Your task to perform on an android device: turn off smart reply in the gmail app Image 0: 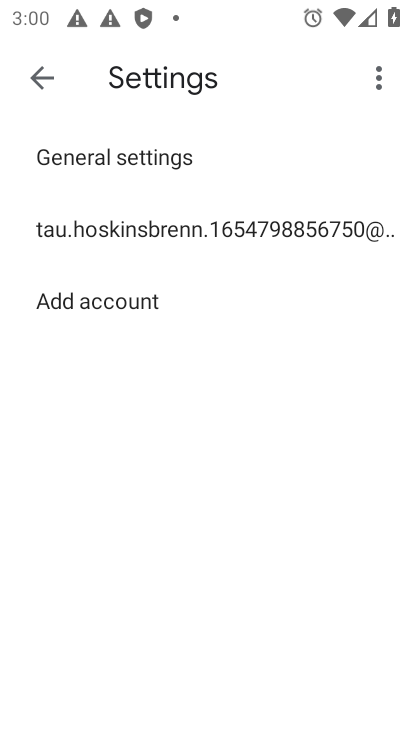
Step 0: press home button
Your task to perform on an android device: turn off smart reply in the gmail app Image 1: 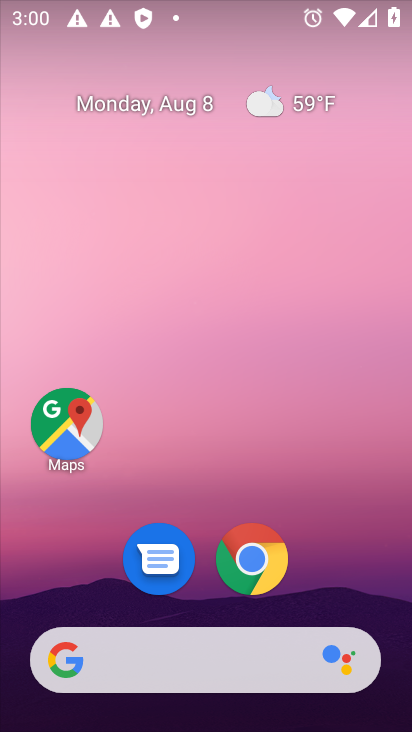
Step 1: drag from (179, 660) to (244, 201)
Your task to perform on an android device: turn off smart reply in the gmail app Image 2: 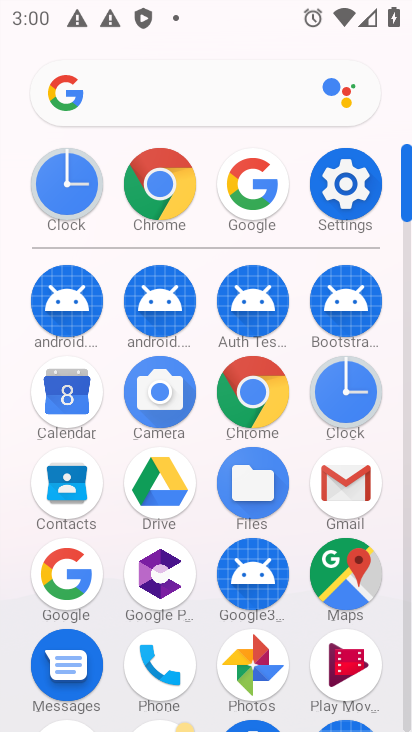
Step 2: click (345, 481)
Your task to perform on an android device: turn off smart reply in the gmail app Image 3: 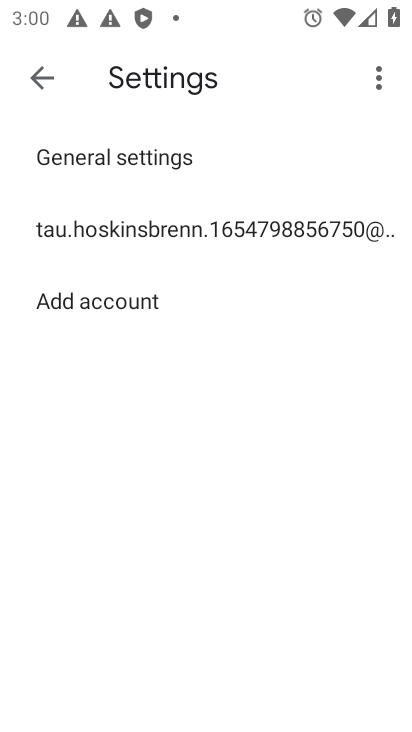
Step 3: click (262, 231)
Your task to perform on an android device: turn off smart reply in the gmail app Image 4: 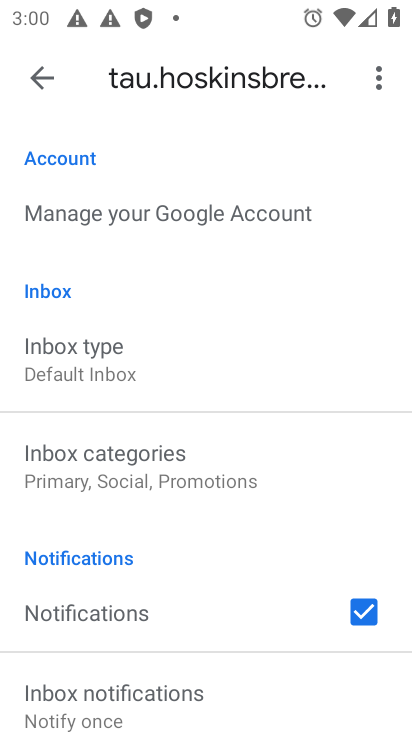
Step 4: drag from (128, 500) to (169, 345)
Your task to perform on an android device: turn off smart reply in the gmail app Image 5: 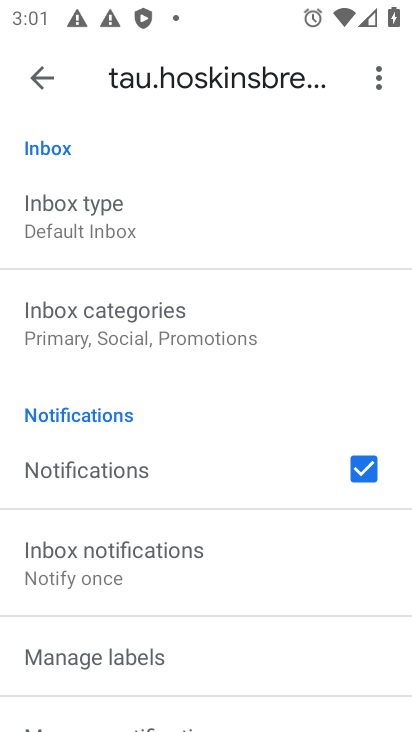
Step 5: drag from (145, 497) to (170, 404)
Your task to perform on an android device: turn off smart reply in the gmail app Image 6: 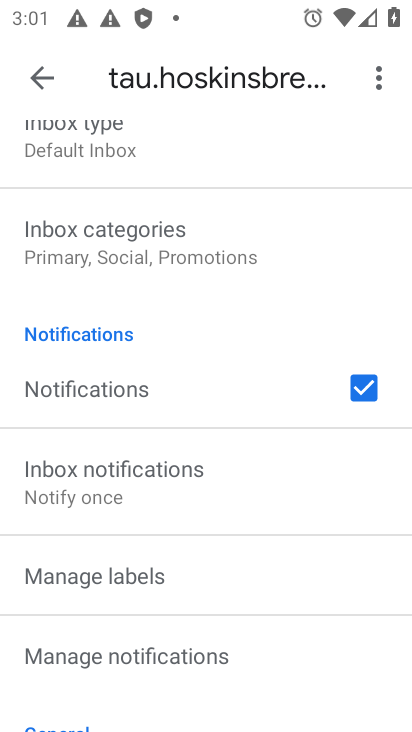
Step 6: drag from (141, 507) to (185, 415)
Your task to perform on an android device: turn off smart reply in the gmail app Image 7: 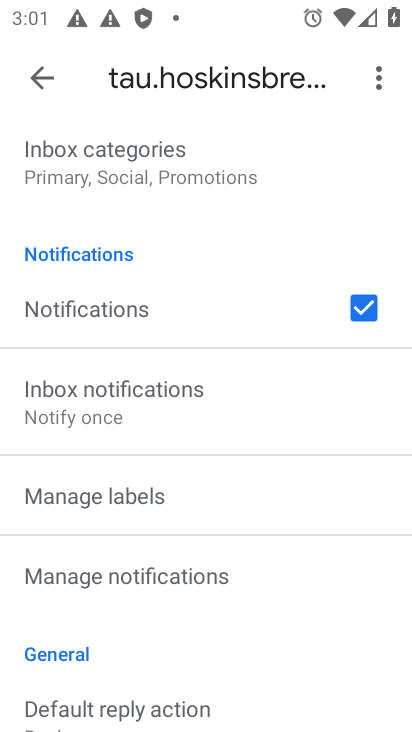
Step 7: drag from (145, 519) to (187, 431)
Your task to perform on an android device: turn off smart reply in the gmail app Image 8: 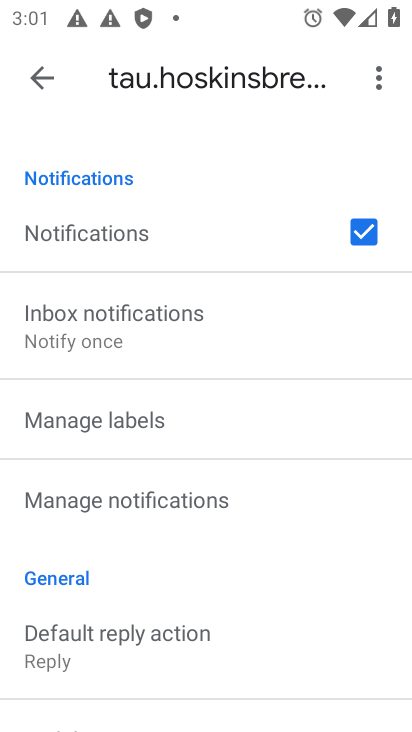
Step 8: drag from (143, 531) to (210, 426)
Your task to perform on an android device: turn off smart reply in the gmail app Image 9: 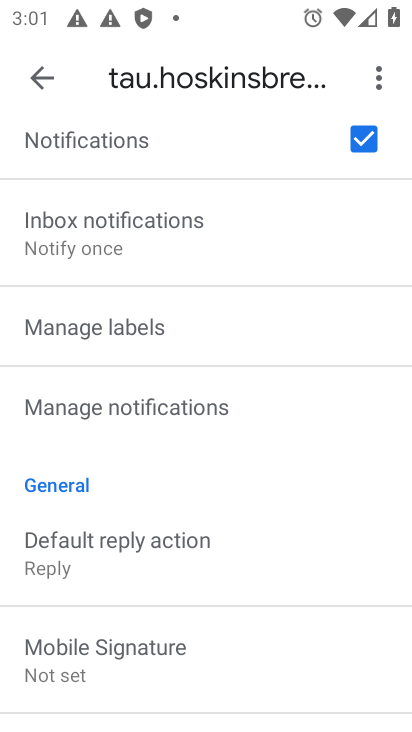
Step 9: drag from (138, 583) to (196, 481)
Your task to perform on an android device: turn off smart reply in the gmail app Image 10: 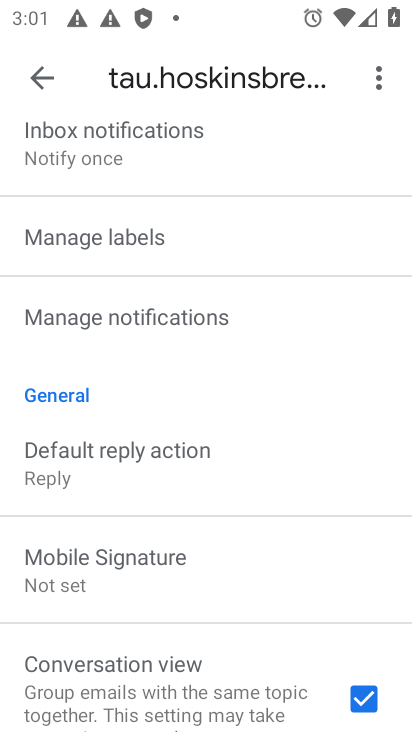
Step 10: drag from (139, 581) to (206, 483)
Your task to perform on an android device: turn off smart reply in the gmail app Image 11: 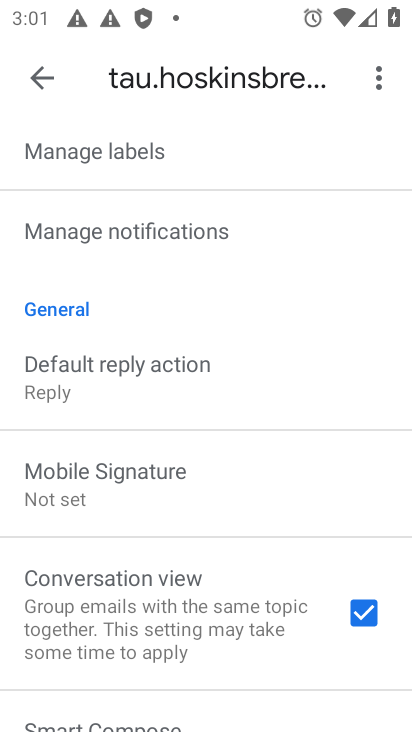
Step 11: drag from (148, 658) to (215, 551)
Your task to perform on an android device: turn off smart reply in the gmail app Image 12: 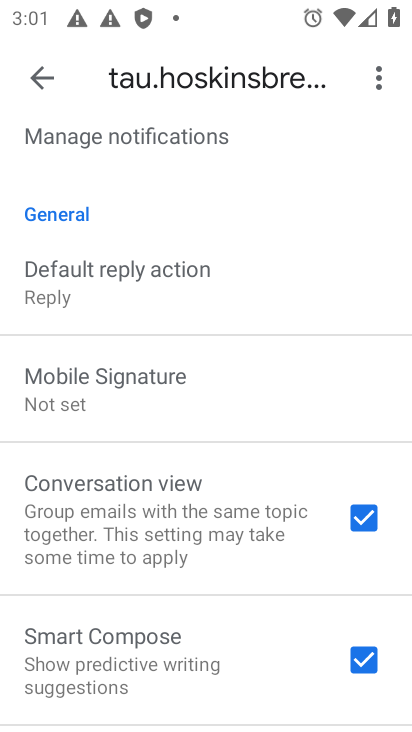
Step 12: drag from (142, 687) to (230, 575)
Your task to perform on an android device: turn off smart reply in the gmail app Image 13: 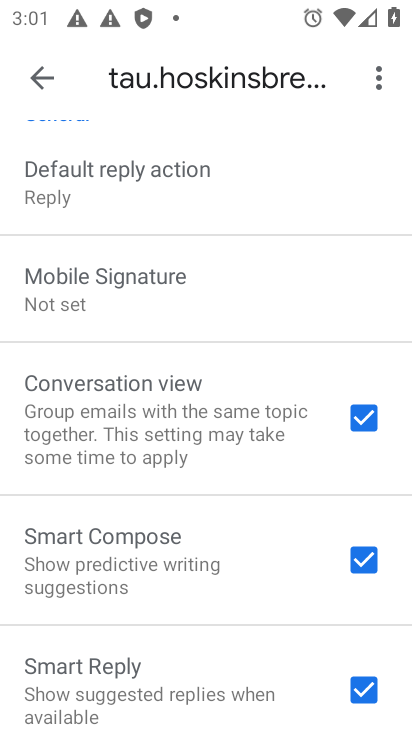
Step 13: drag from (142, 706) to (244, 592)
Your task to perform on an android device: turn off smart reply in the gmail app Image 14: 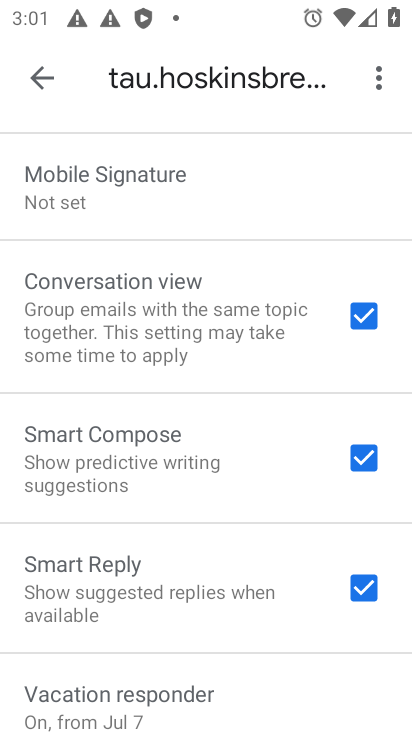
Step 14: click (365, 591)
Your task to perform on an android device: turn off smart reply in the gmail app Image 15: 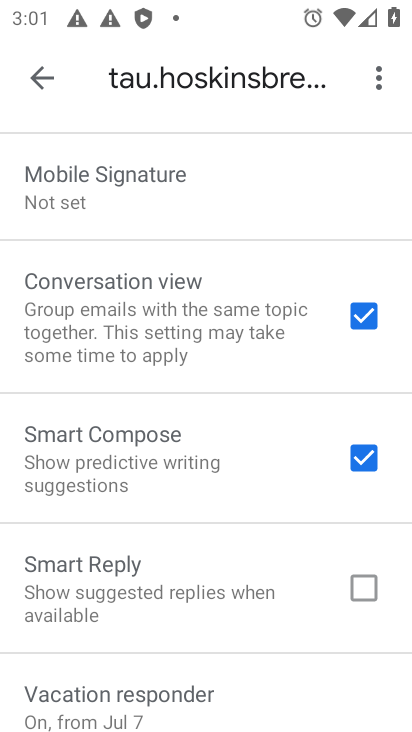
Step 15: task complete